Your task to perform on an android device: move an email to a new category in the gmail app Image 0: 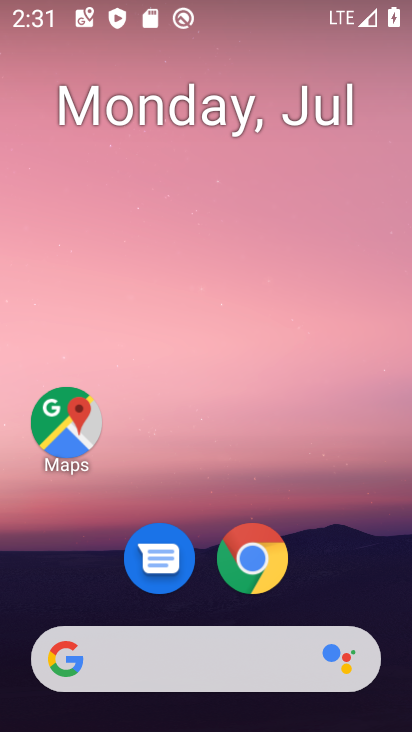
Step 0: press home button
Your task to perform on an android device: move an email to a new category in the gmail app Image 1: 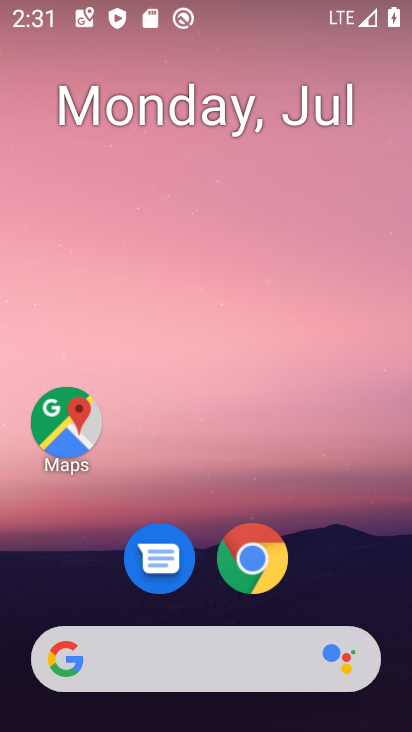
Step 1: drag from (370, 591) to (375, 78)
Your task to perform on an android device: move an email to a new category in the gmail app Image 2: 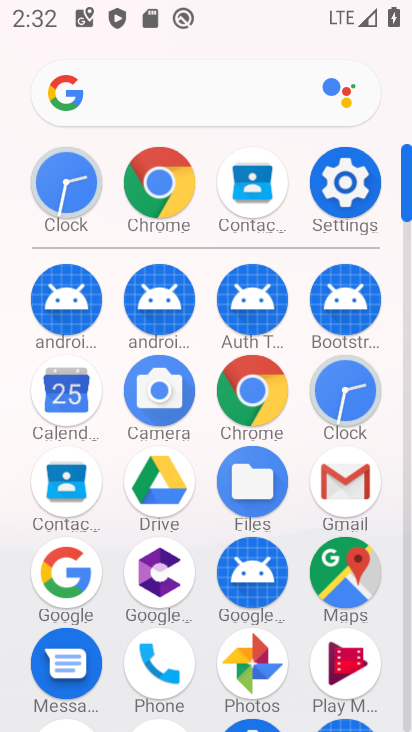
Step 2: click (349, 483)
Your task to perform on an android device: move an email to a new category in the gmail app Image 3: 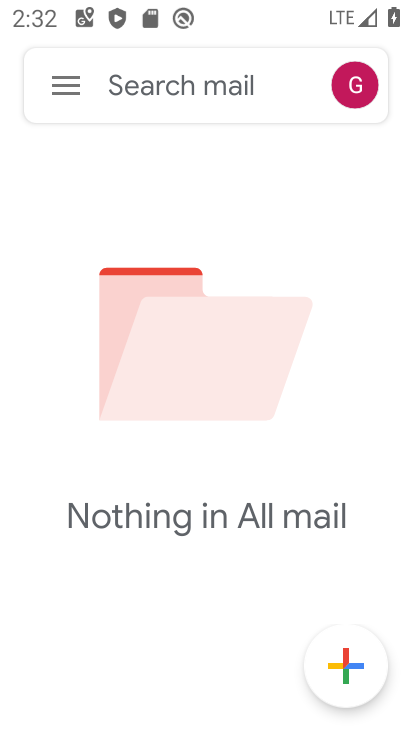
Step 3: task complete